Your task to perform on an android device: Go to location settings Image 0: 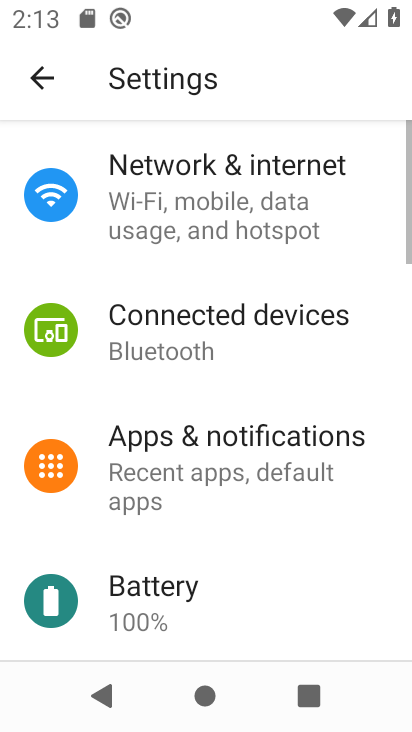
Step 0: drag from (260, 582) to (276, 187)
Your task to perform on an android device: Go to location settings Image 1: 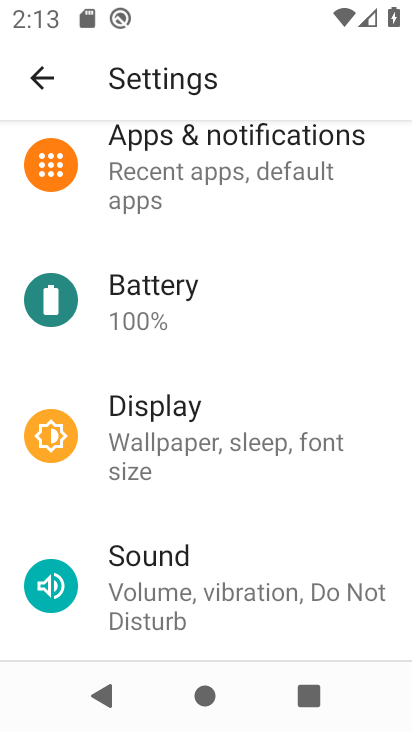
Step 1: drag from (246, 523) to (276, 221)
Your task to perform on an android device: Go to location settings Image 2: 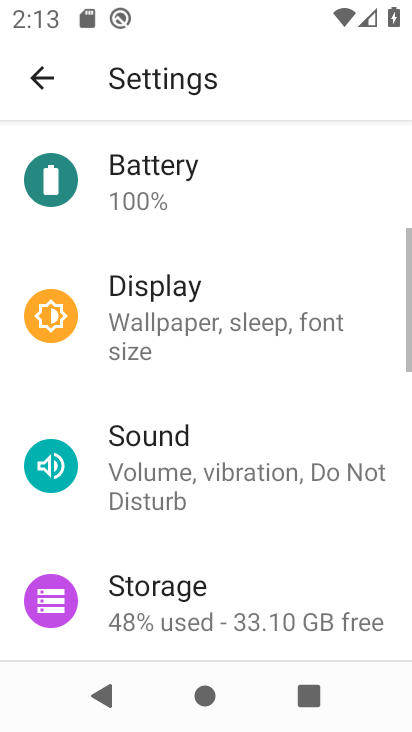
Step 2: drag from (247, 484) to (278, 191)
Your task to perform on an android device: Go to location settings Image 3: 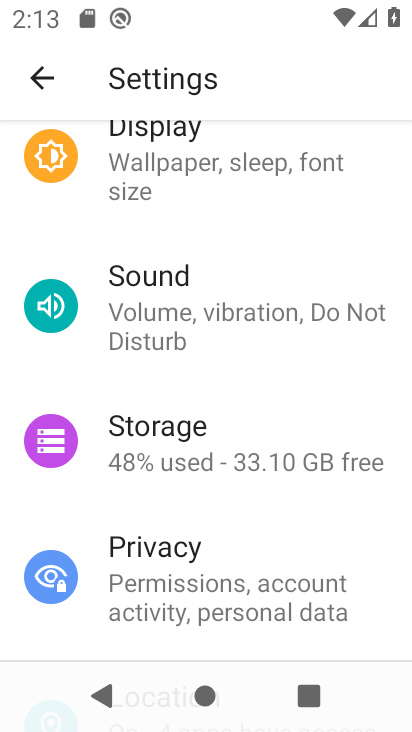
Step 3: drag from (249, 466) to (276, 179)
Your task to perform on an android device: Go to location settings Image 4: 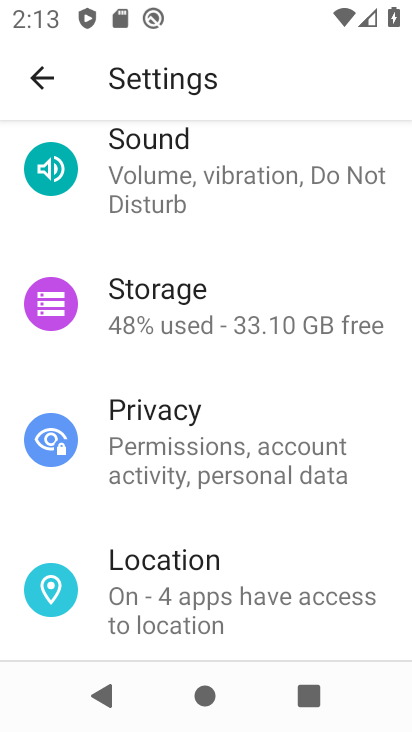
Step 4: click (199, 599)
Your task to perform on an android device: Go to location settings Image 5: 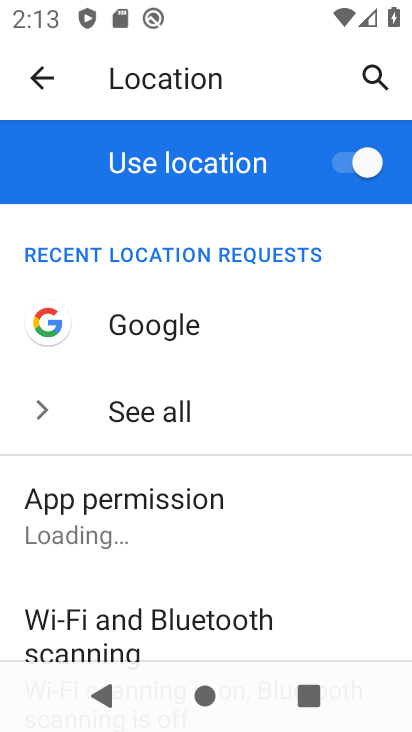
Step 5: task complete